Your task to perform on an android device: Go to Reddit.com Image 0: 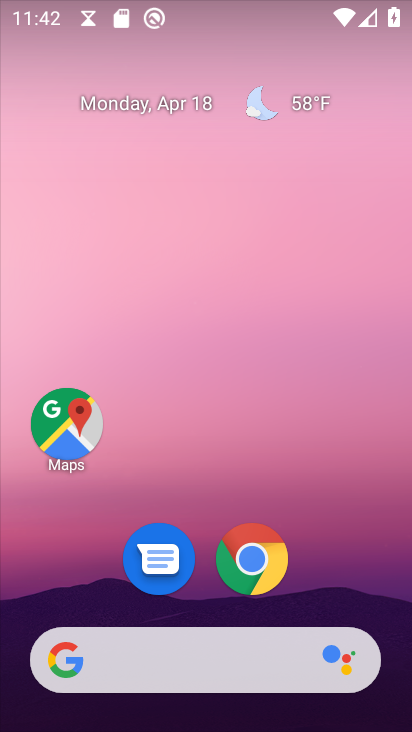
Step 0: click (258, 559)
Your task to perform on an android device: Go to Reddit.com Image 1: 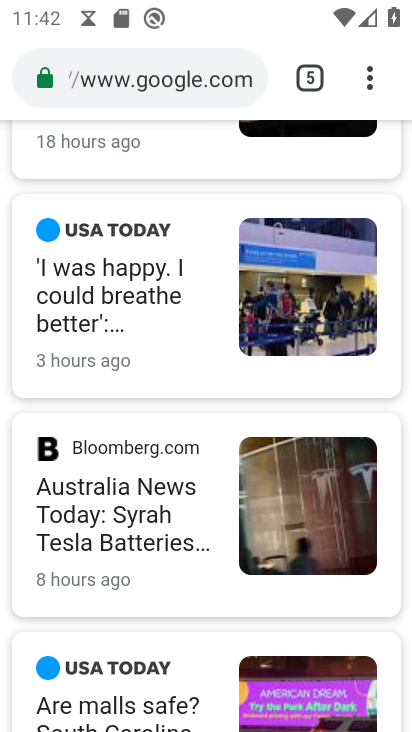
Step 1: click (302, 84)
Your task to perform on an android device: Go to Reddit.com Image 2: 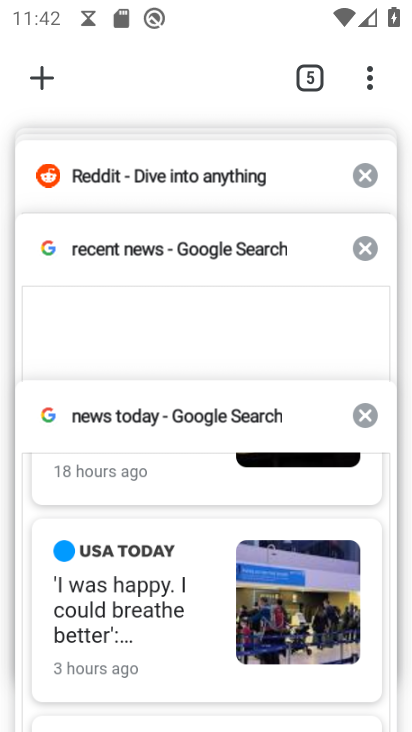
Step 2: click (163, 180)
Your task to perform on an android device: Go to Reddit.com Image 3: 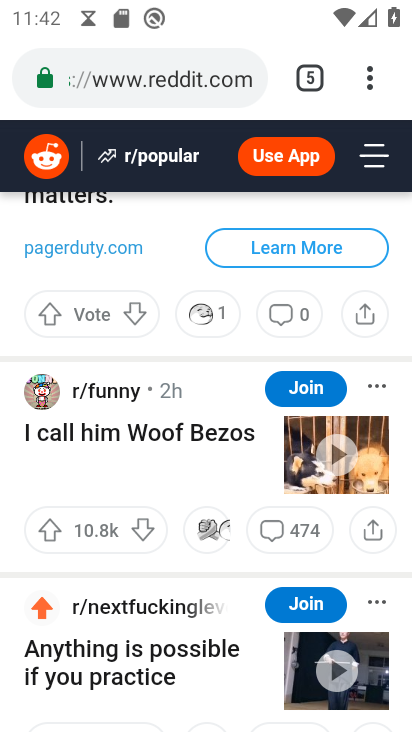
Step 3: task complete